Your task to perform on an android device: What's the weather? Image 0: 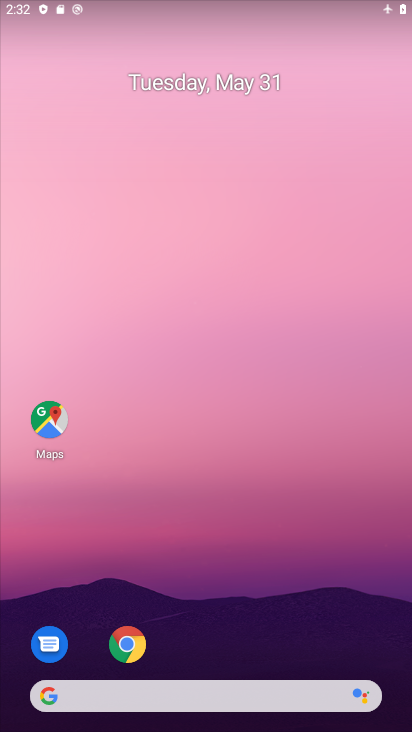
Step 0: click (194, 687)
Your task to perform on an android device: What's the weather? Image 1: 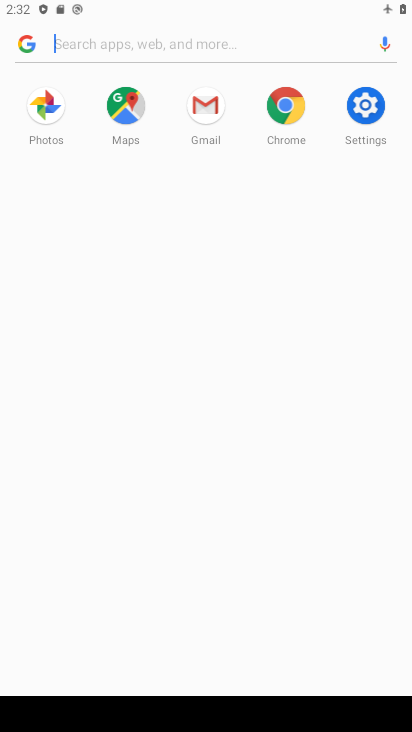
Step 1: drag from (310, 5) to (296, 476)
Your task to perform on an android device: What's the weather? Image 2: 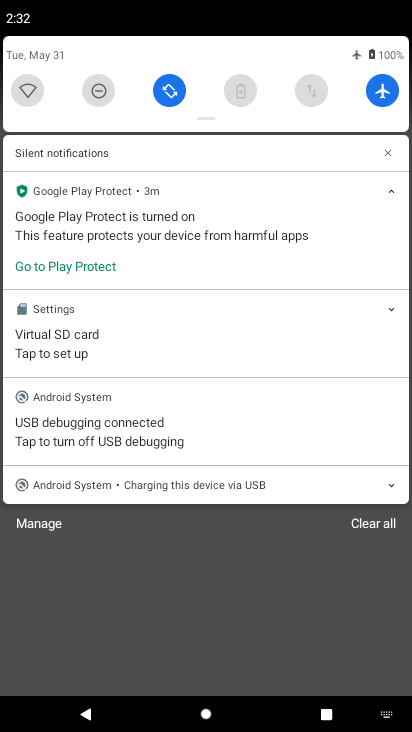
Step 2: click (380, 99)
Your task to perform on an android device: What's the weather? Image 3: 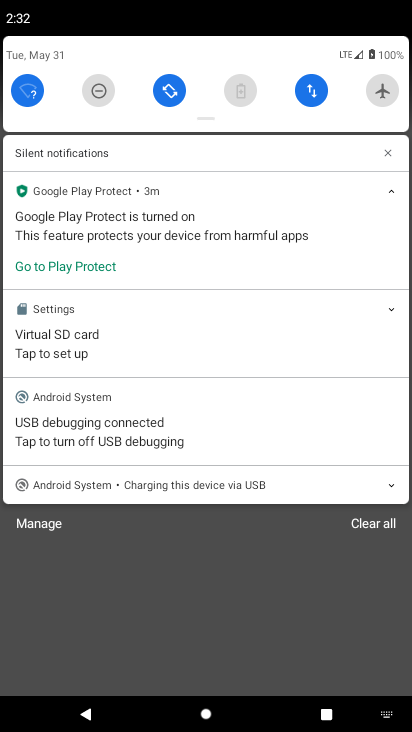
Step 3: drag from (281, 513) to (359, 209)
Your task to perform on an android device: What's the weather? Image 4: 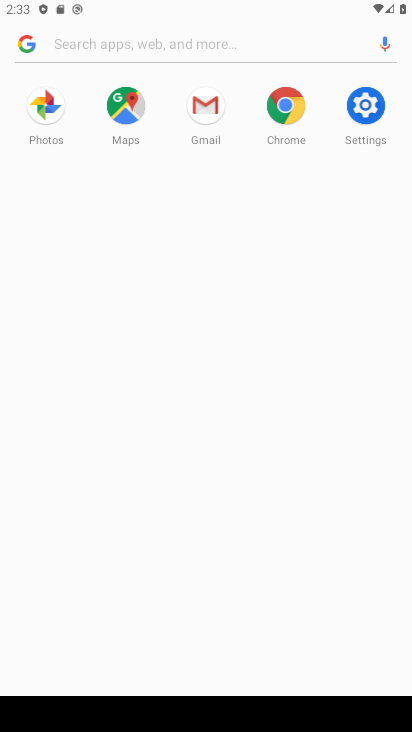
Step 4: type "weather"
Your task to perform on an android device: What's the weather? Image 5: 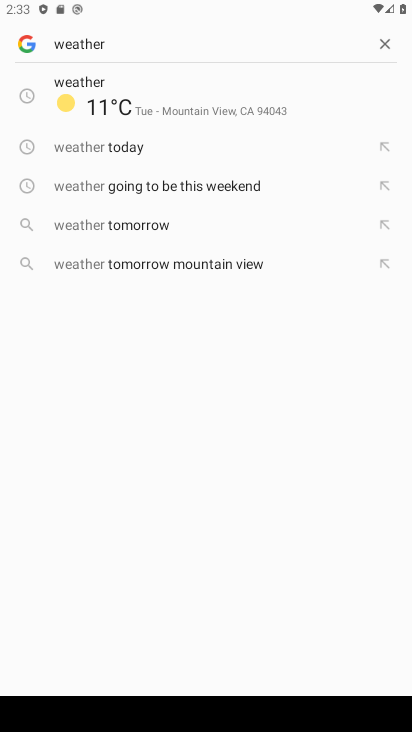
Step 5: click (258, 33)
Your task to perform on an android device: What's the weather? Image 6: 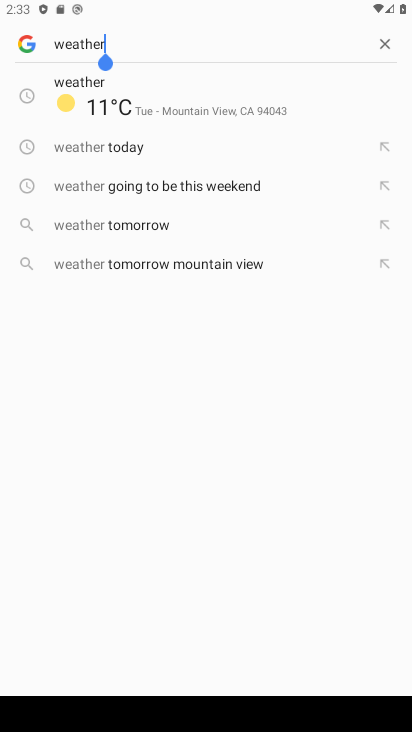
Step 6: click (163, 106)
Your task to perform on an android device: What's the weather? Image 7: 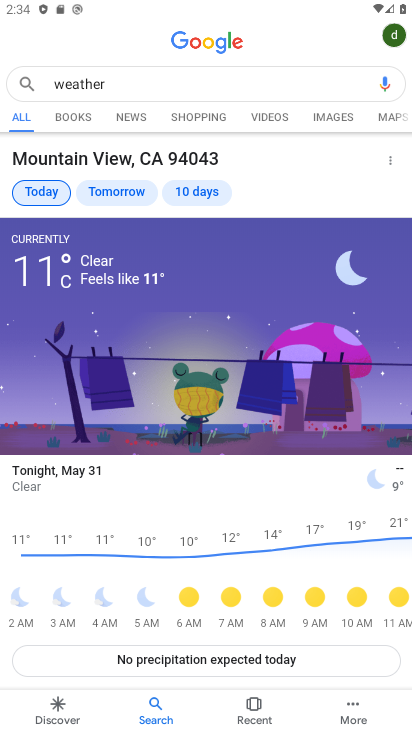
Step 7: task complete